Your task to perform on an android device: turn off notifications settings in the gmail app Image 0: 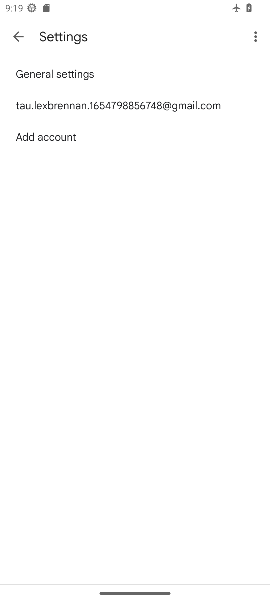
Step 0: press home button
Your task to perform on an android device: turn off notifications settings in the gmail app Image 1: 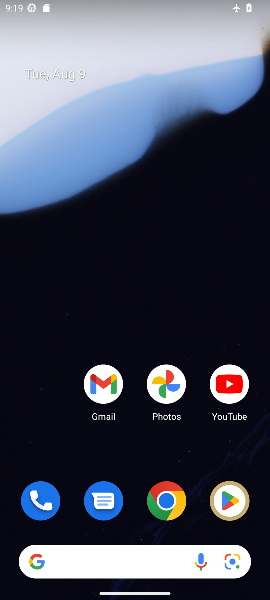
Step 1: drag from (132, 504) to (133, 94)
Your task to perform on an android device: turn off notifications settings in the gmail app Image 2: 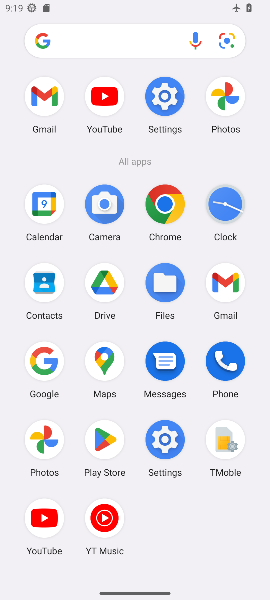
Step 2: click (163, 105)
Your task to perform on an android device: turn off notifications settings in the gmail app Image 3: 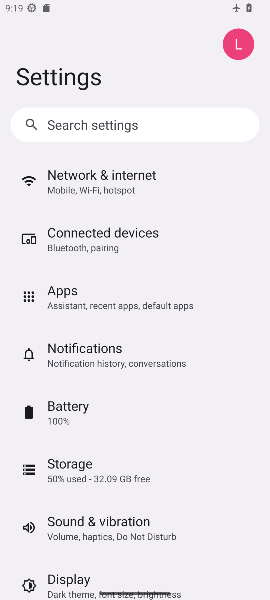
Step 3: click (96, 365)
Your task to perform on an android device: turn off notifications settings in the gmail app Image 4: 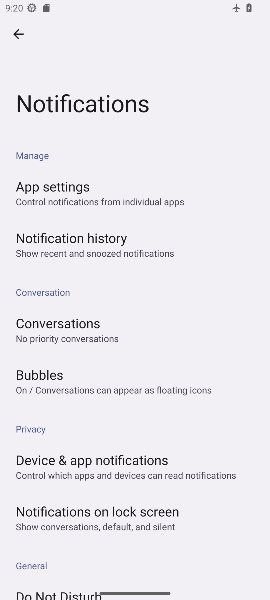
Step 4: task complete